Your task to perform on an android device: Go to ESPN.com Image 0: 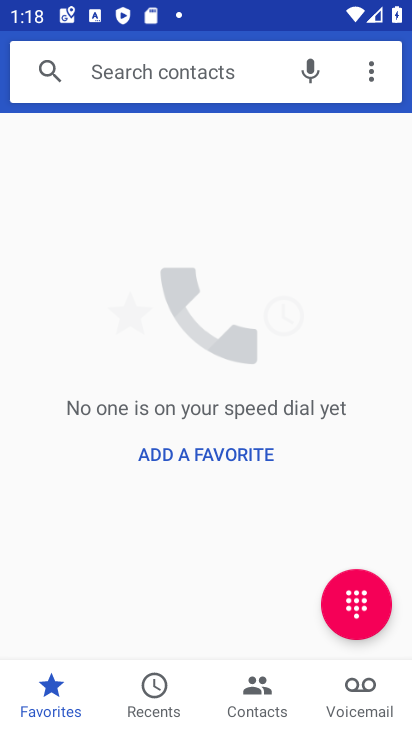
Step 0: press home button
Your task to perform on an android device: Go to ESPN.com Image 1: 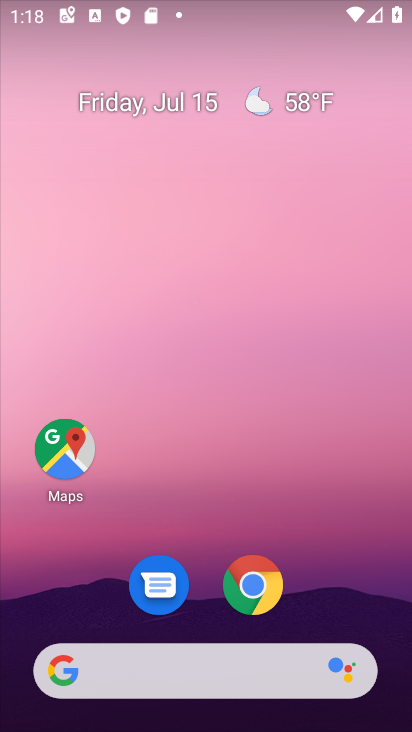
Step 1: click (262, 687)
Your task to perform on an android device: Go to ESPN.com Image 2: 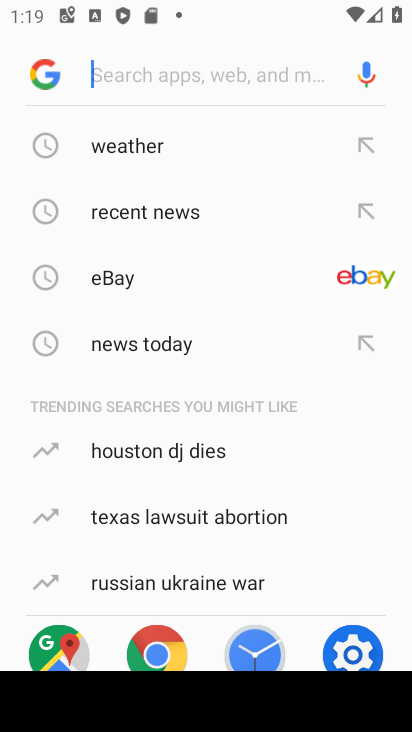
Step 2: type "espn.com"
Your task to perform on an android device: Go to ESPN.com Image 3: 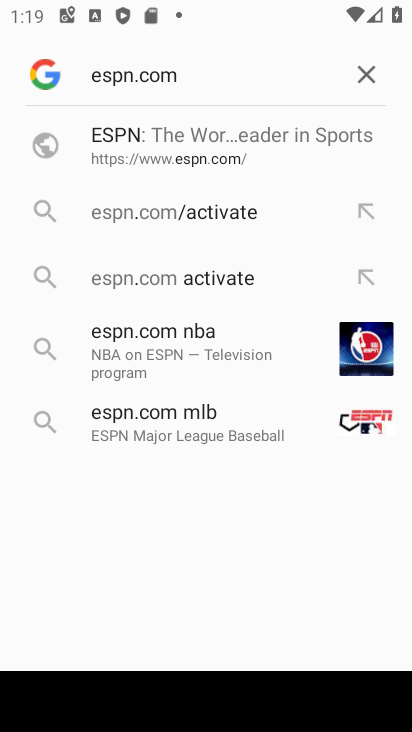
Step 3: click (150, 150)
Your task to perform on an android device: Go to ESPN.com Image 4: 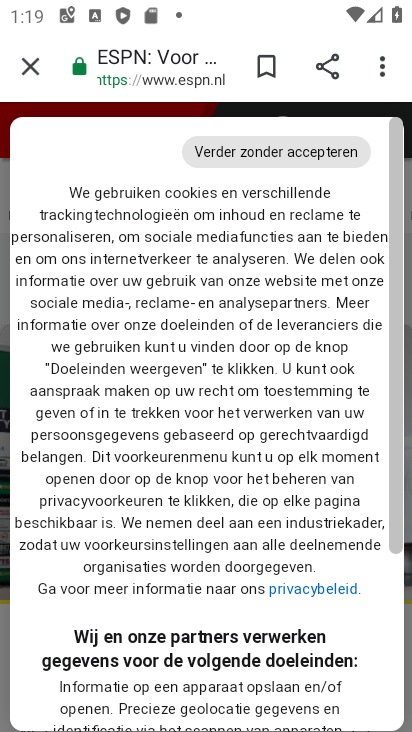
Step 4: click (335, 155)
Your task to perform on an android device: Go to ESPN.com Image 5: 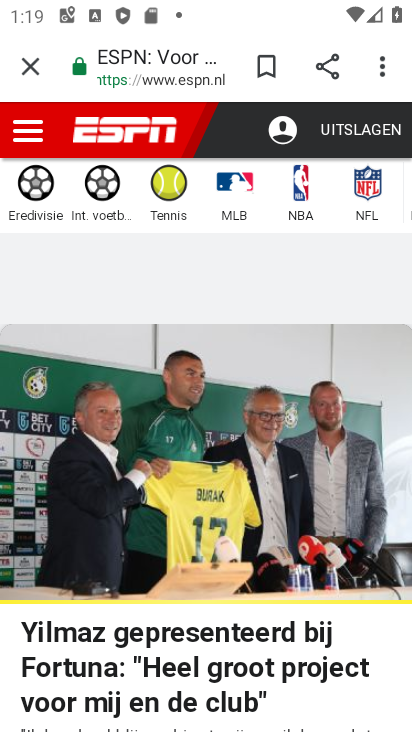
Step 5: task complete